Your task to perform on an android device: Open accessibility settings Image 0: 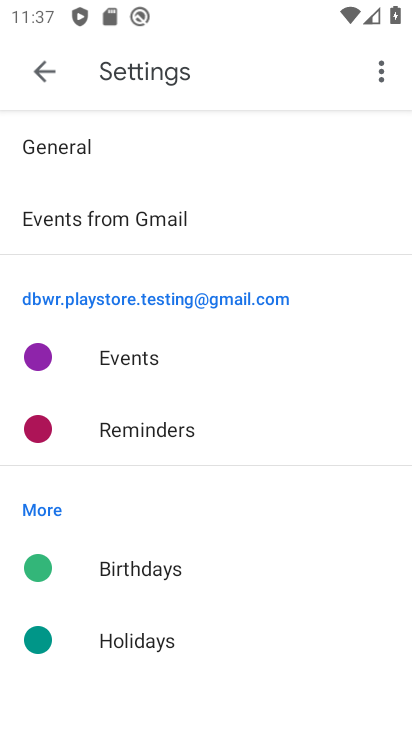
Step 0: press home button
Your task to perform on an android device: Open accessibility settings Image 1: 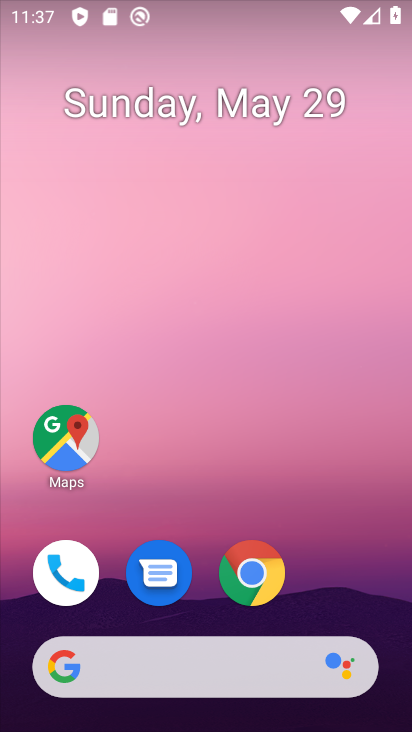
Step 1: drag from (362, 590) to (311, 178)
Your task to perform on an android device: Open accessibility settings Image 2: 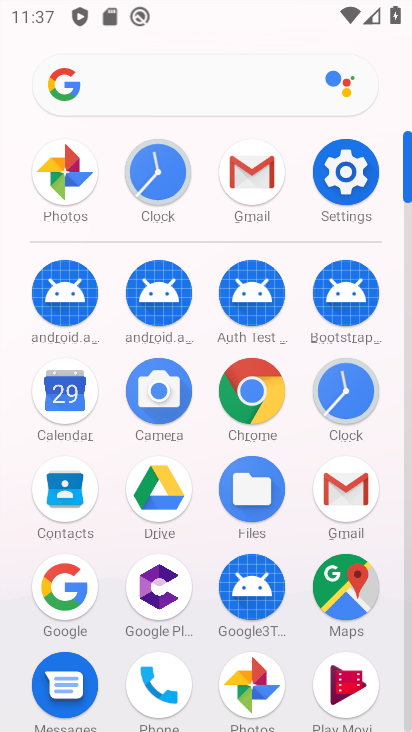
Step 2: click (333, 175)
Your task to perform on an android device: Open accessibility settings Image 3: 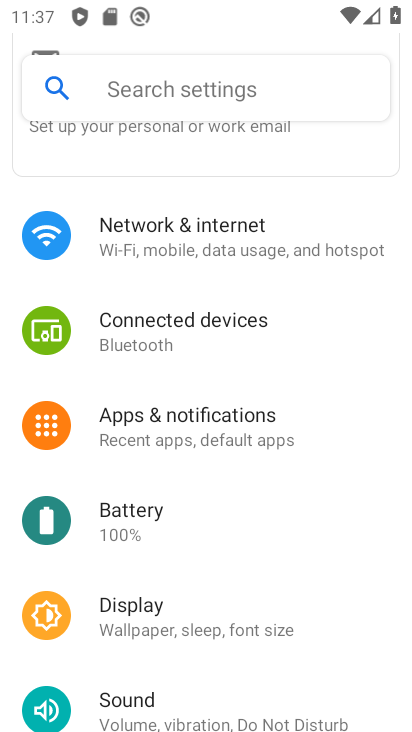
Step 3: drag from (299, 646) to (301, 0)
Your task to perform on an android device: Open accessibility settings Image 4: 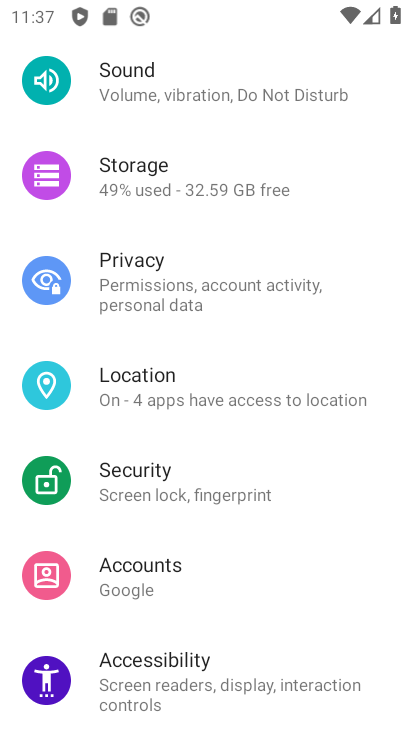
Step 4: click (171, 691)
Your task to perform on an android device: Open accessibility settings Image 5: 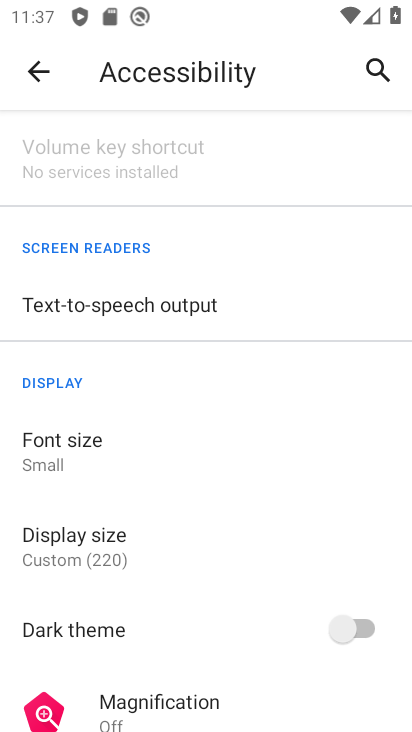
Step 5: task complete